Your task to perform on an android device: When is my next appointment? Image 0: 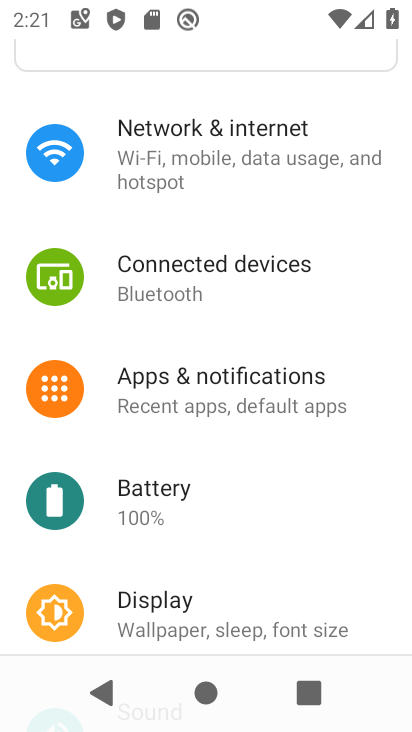
Step 0: press home button
Your task to perform on an android device: When is my next appointment? Image 1: 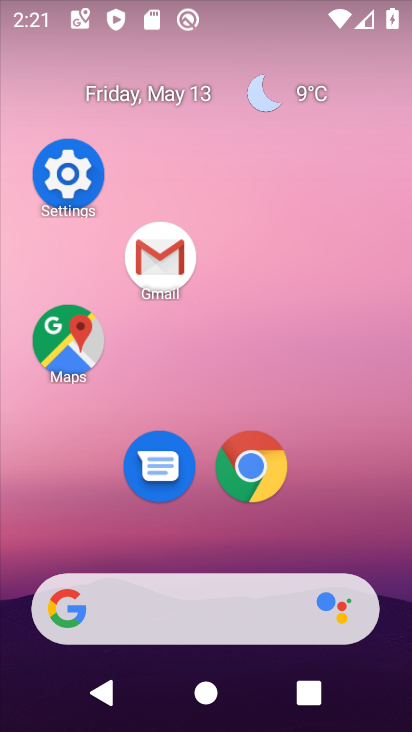
Step 1: drag from (268, 542) to (318, 175)
Your task to perform on an android device: When is my next appointment? Image 2: 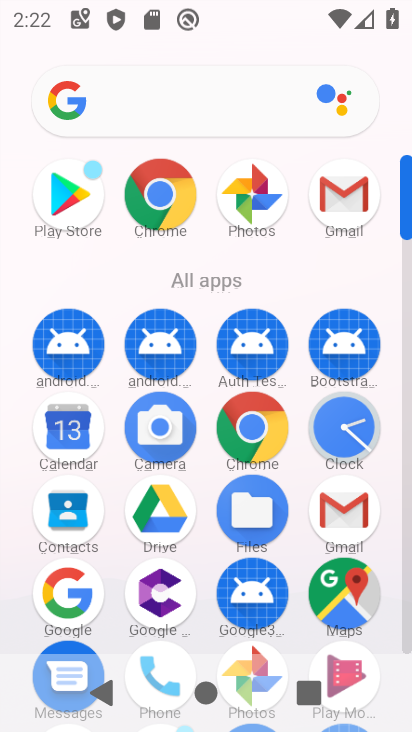
Step 2: drag from (75, 434) to (173, 189)
Your task to perform on an android device: When is my next appointment? Image 3: 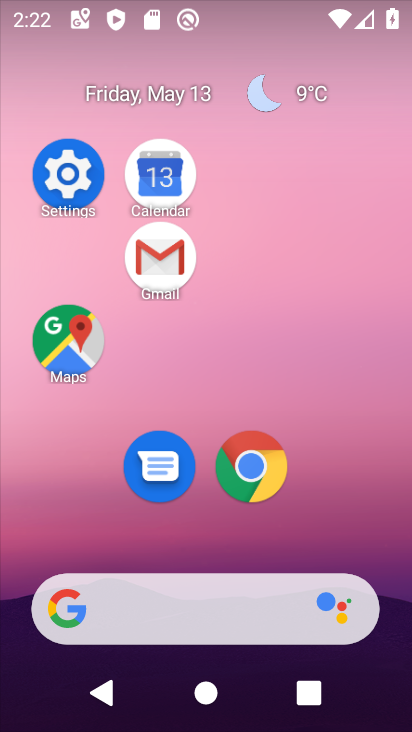
Step 3: click (159, 177)
Your task to perform on an android device: When is my next appointment? Image 4: 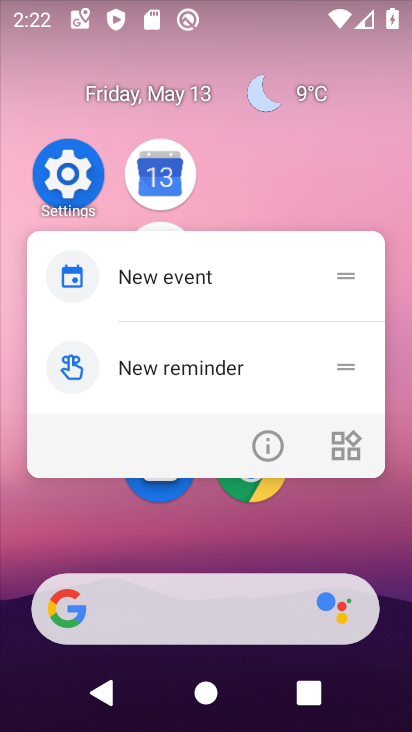
Step 4: click (159, 177)
Your task to perform on an android device: When is my next appointment? Image 5: 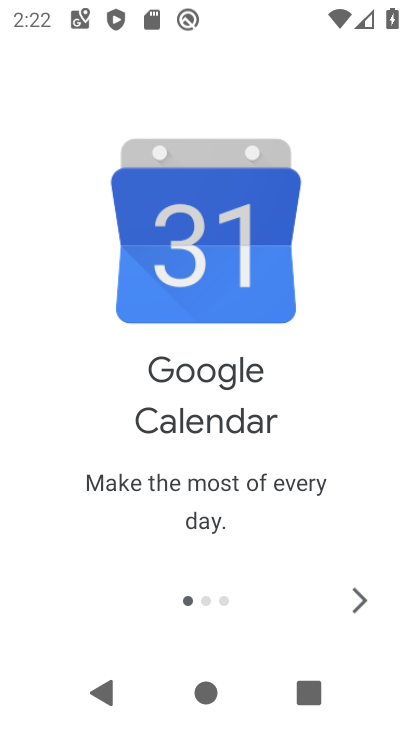
Step 5: click (358, 600)
Your task to perform on an android device: When is my next appointment? Image 6: 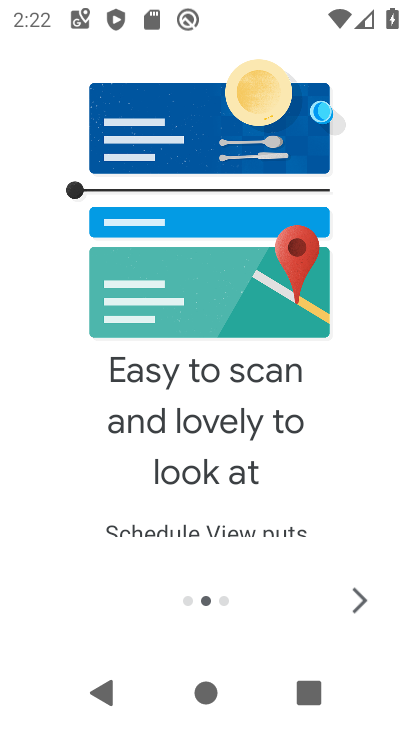
Step 6: click (358, 600)
Your task to perform on an android device: When is my next appointment? Image 7: 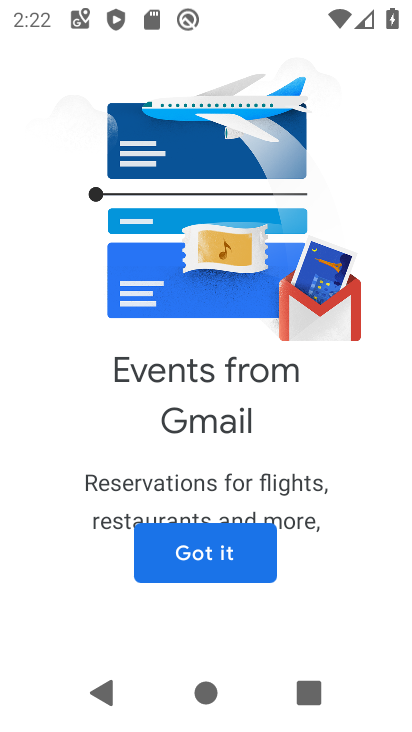
Step 7: click (185, 552)
Your task to perform on an android device: When is my next appointment? Image 8: 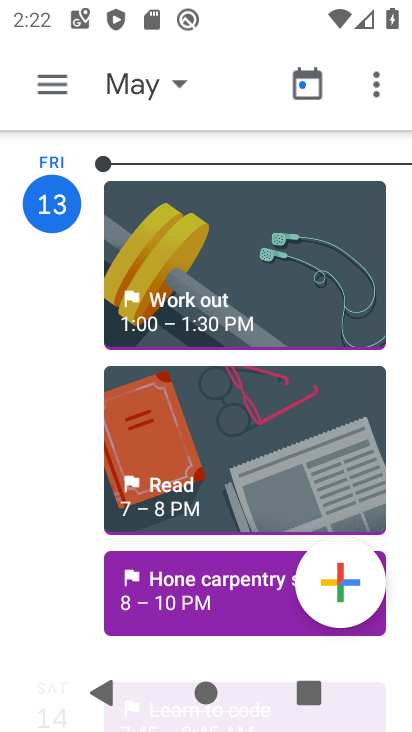
Step 8: drag from (72, 509) to (79, 152)
Your task to perform on an android device: When is my next appointment? Image 9: 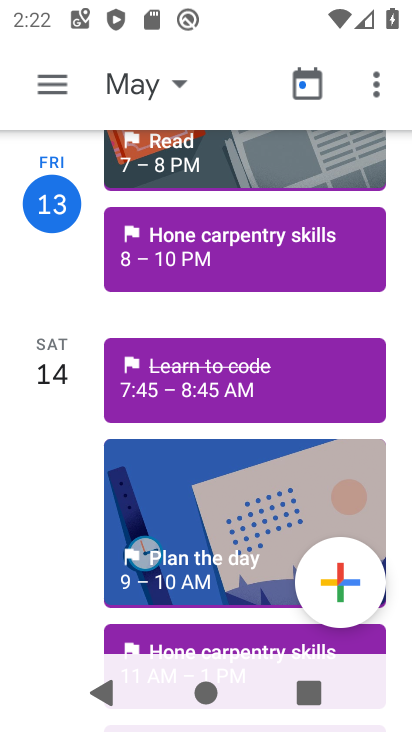
Step 9: click (58, 347)
Your task to perform on an android device: When is my next appointment? Image 10: 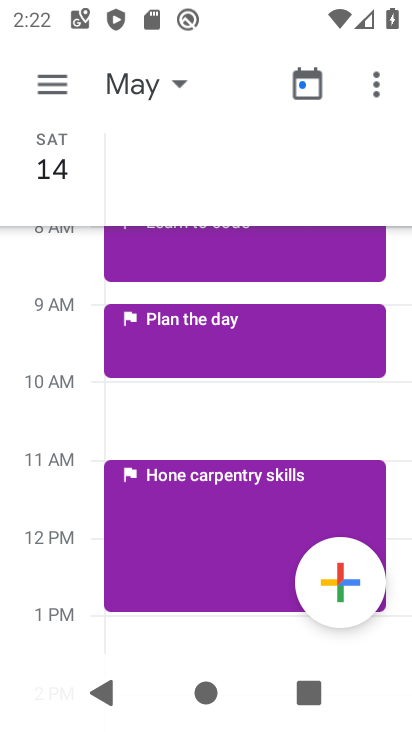
Step 10: task complete